Your task to perform on an android device: View the shopping cart on amazon. Add macbook to the cart on amazon, then select checkout. Image 0: 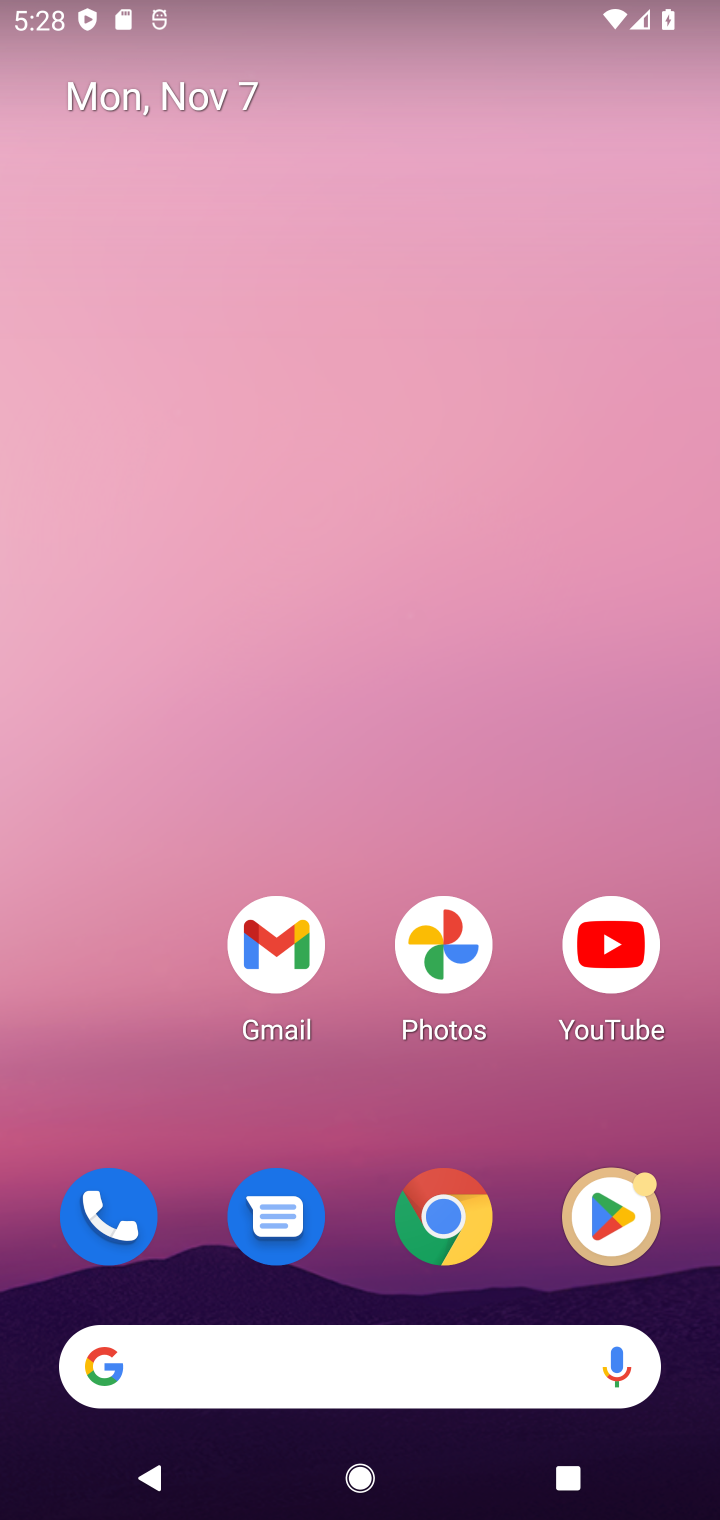
Step 0: drag from (364, 1311) to (345, 230)
Your task to perform on an android device: View the shopping cart on amazon. Add macbook to the cart on amazon, then select checkout. Image 1: 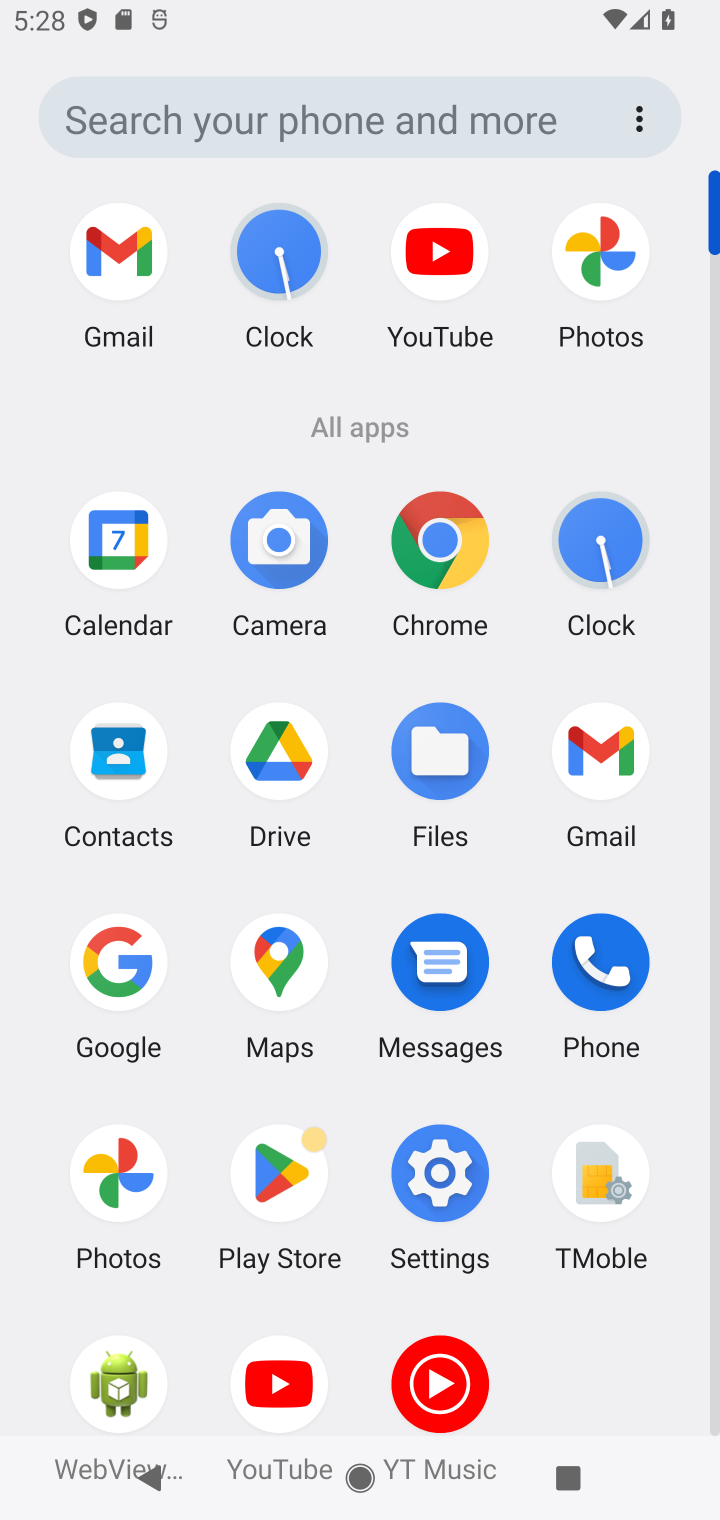
Step 1: click (444, 537)
Your task to perform on an android device: View the shopping cart on amazon. Add macbook to the cart on amazon, then select checkout. Image 2: 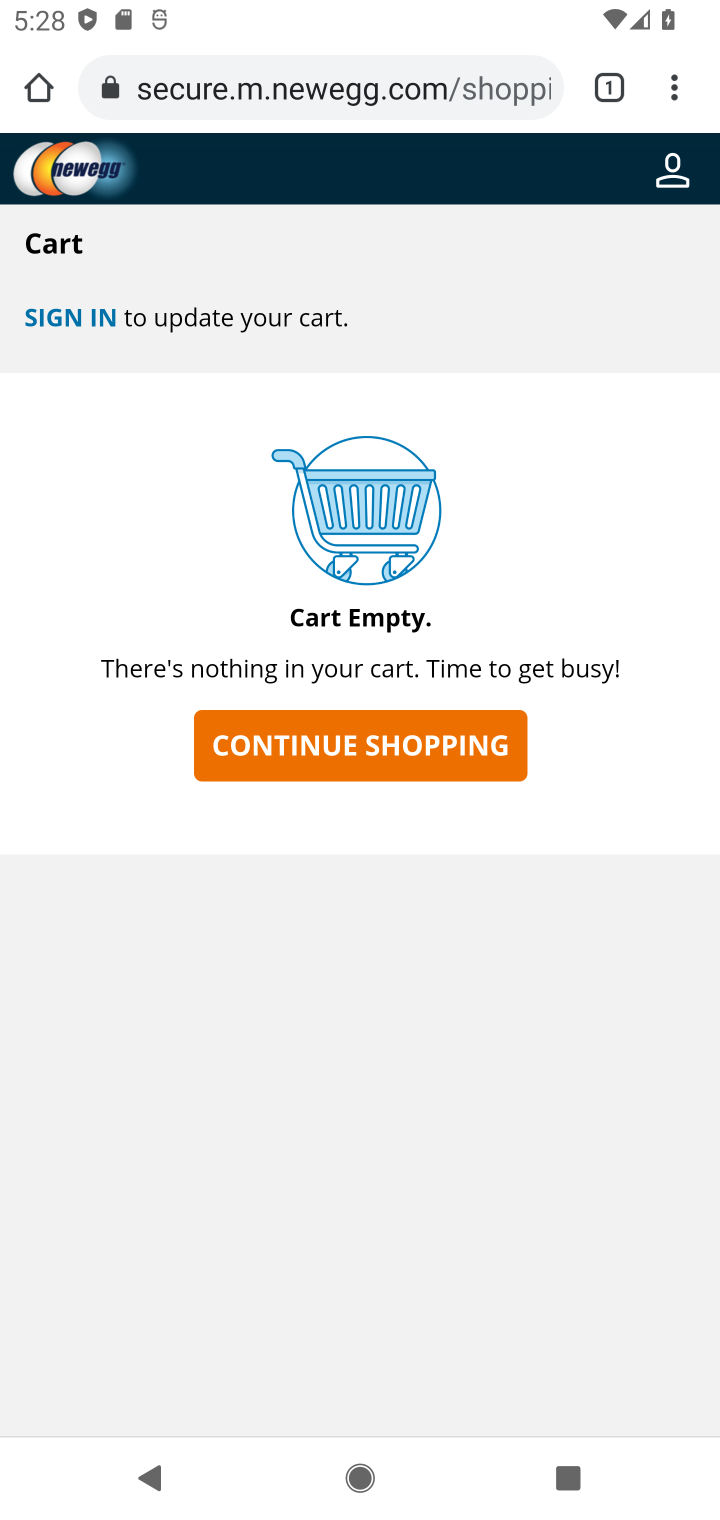
Step 2: click (444, 94)
Your task to perform on an android device: View the shopping cart on amazon. Add macbook to the cart on amazon, then select checkout. Image 3: 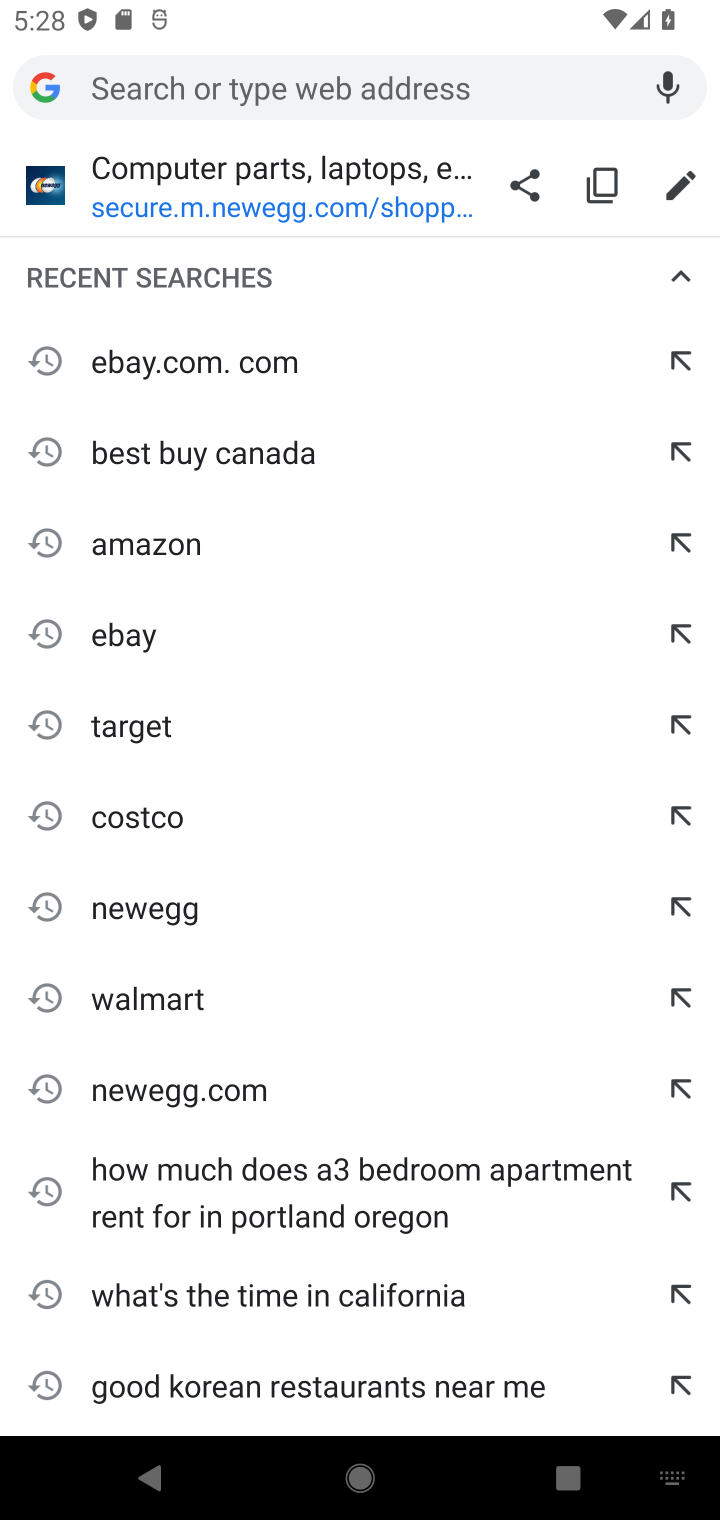
Step 3: type "amazon.com"
Your task to perform on an android device: View the shopping cart on amazon. Add macbook to the cart on amazon, then select checkout. Image 4: 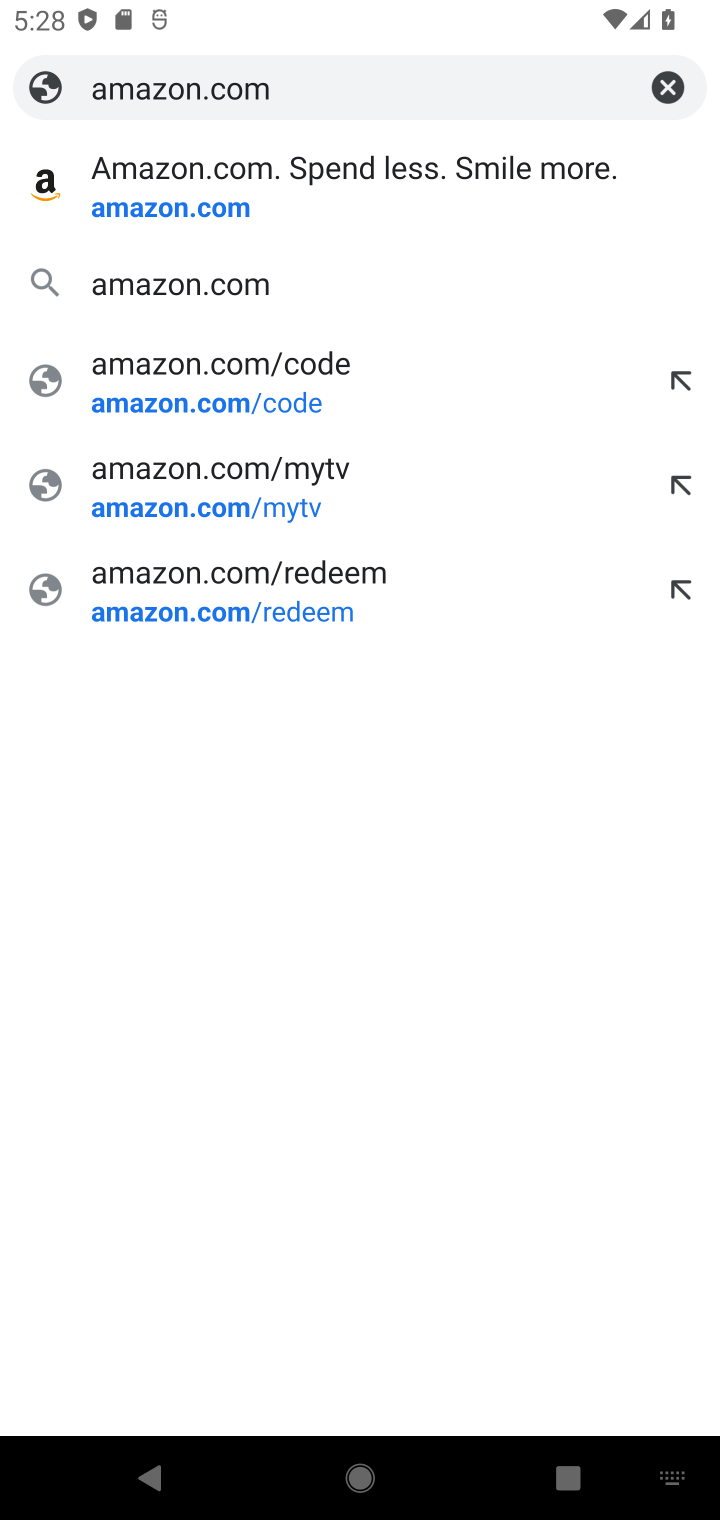
Step 4: press enter
Your task to perform on an android device: View the shopping cart on amazon. Add macbook to the cart on amazon, then select checkout. Image 5: 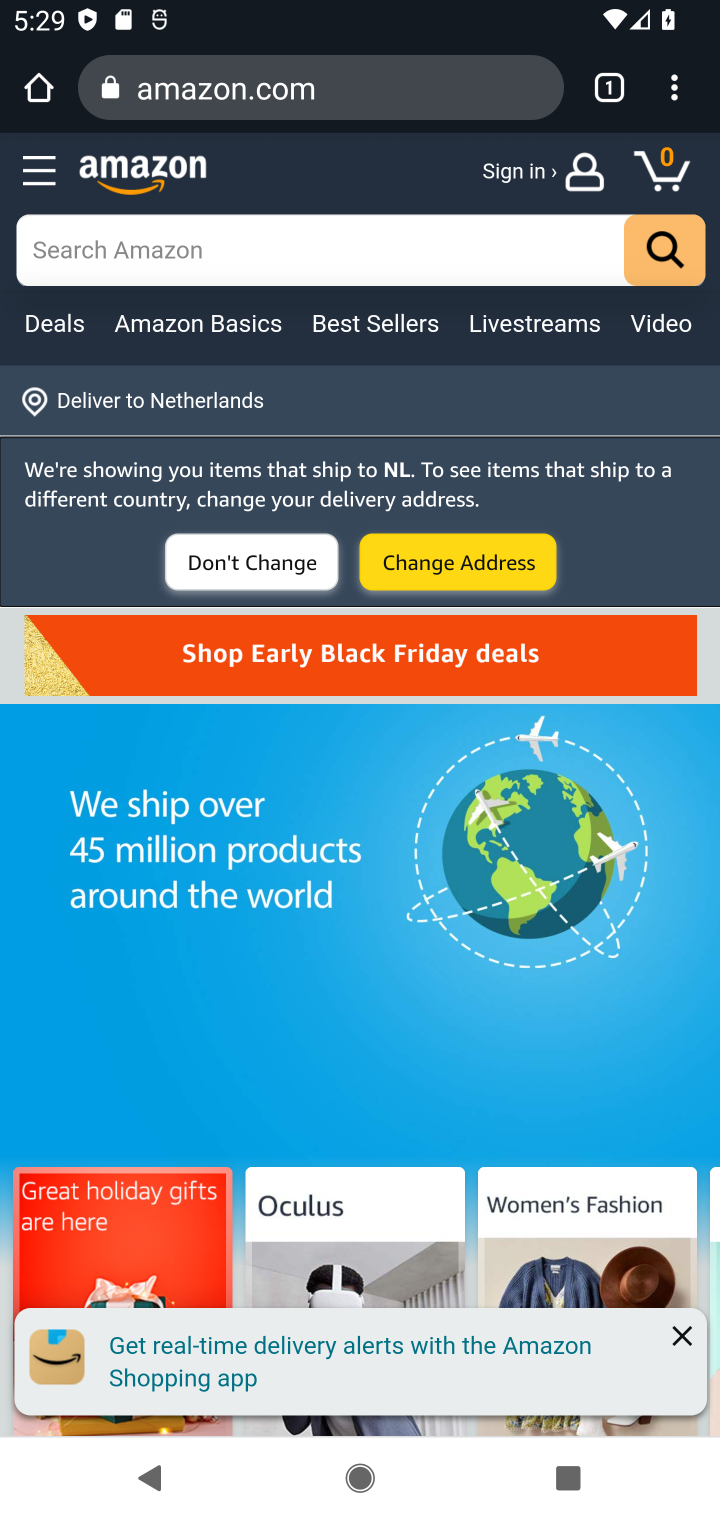
Step 5: click (655, 178)
Your task to perform on an android device: View the shopping cart on amazon. Add macbook to the cart on amazon, then select checkout. Image 6: 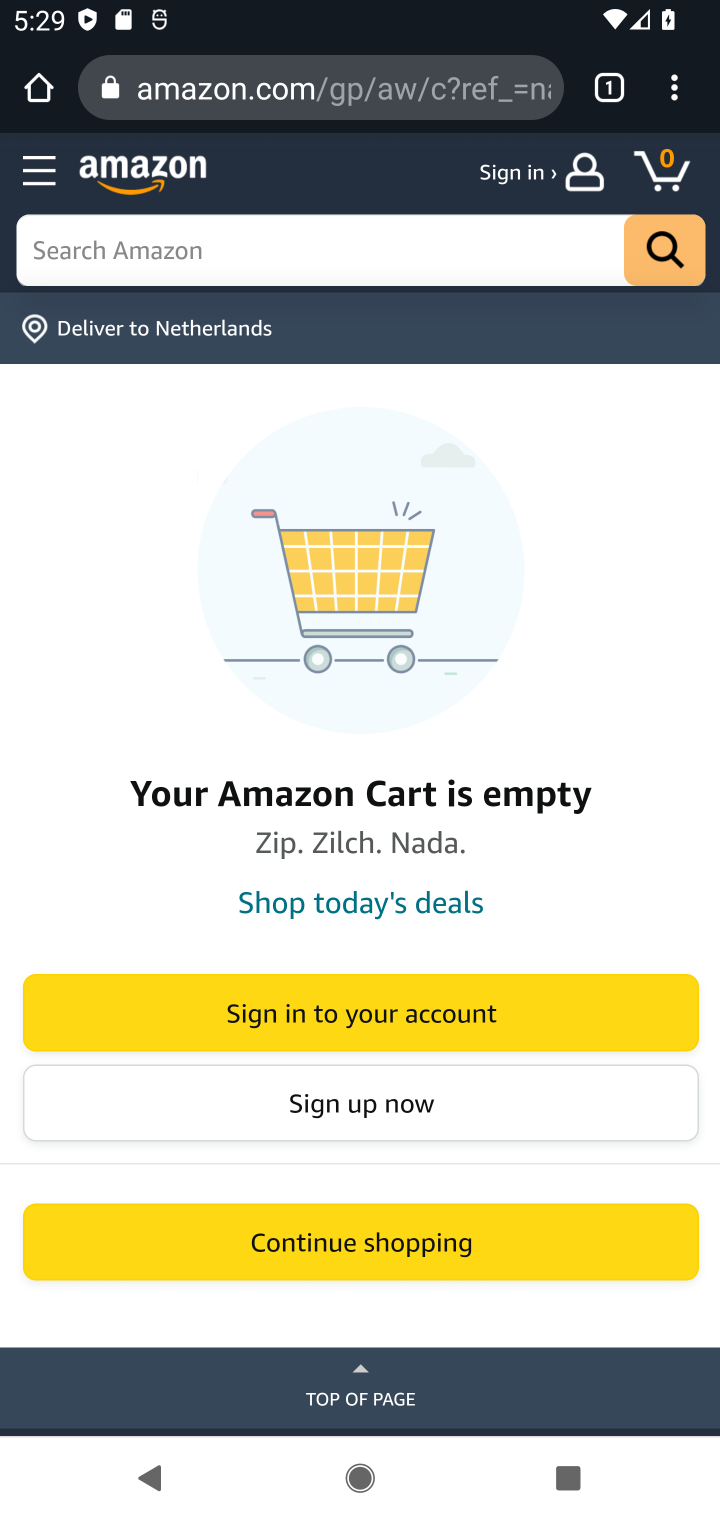
Step 6: click (427, 251)
Your task to perform on an android device: View the shopping cart on amazon. Add macbook to the cart on amazon, then select checkout. Image 7: 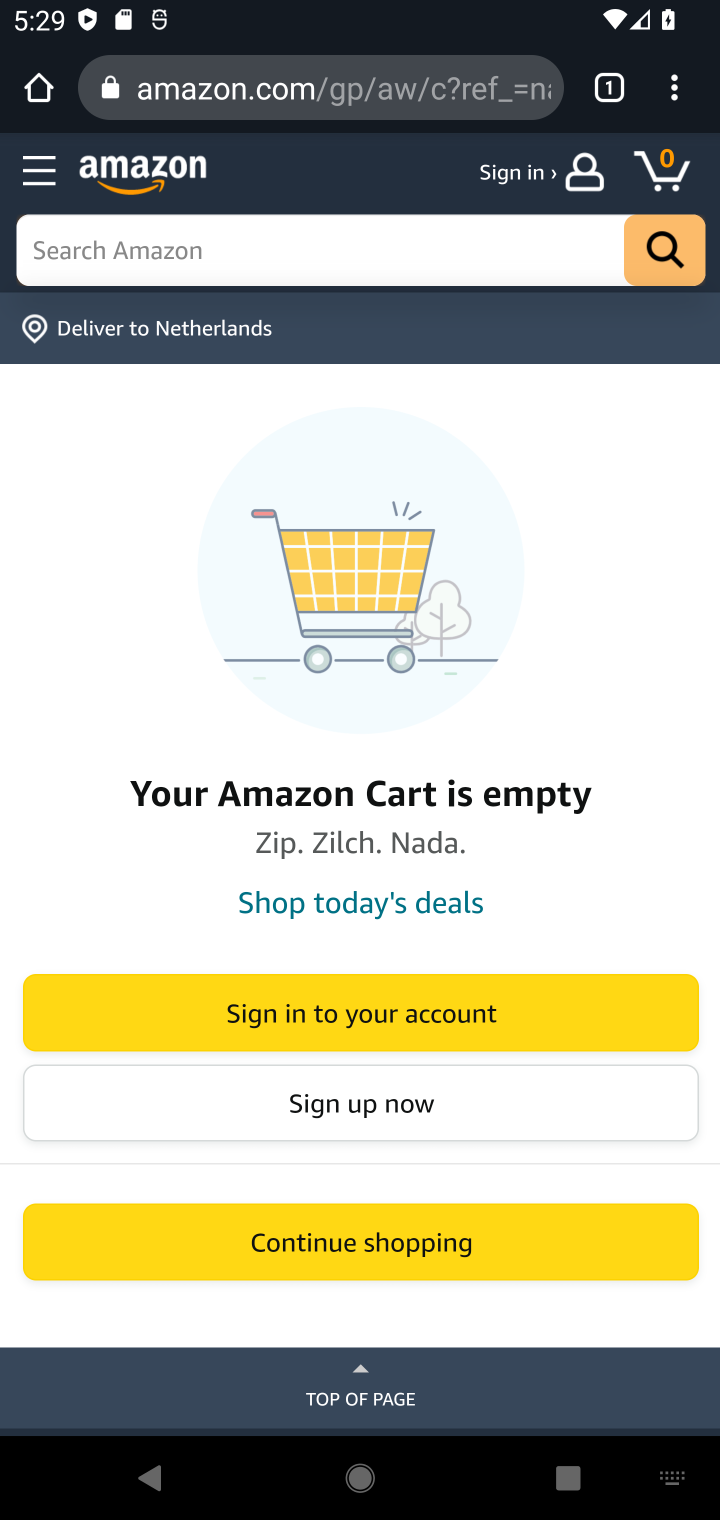
Step 7: type "macbook"
Your task to perform on an android device: View the shopping cart on amazon. Add macbook to the cart on amazon, then select checkout. Image 8: 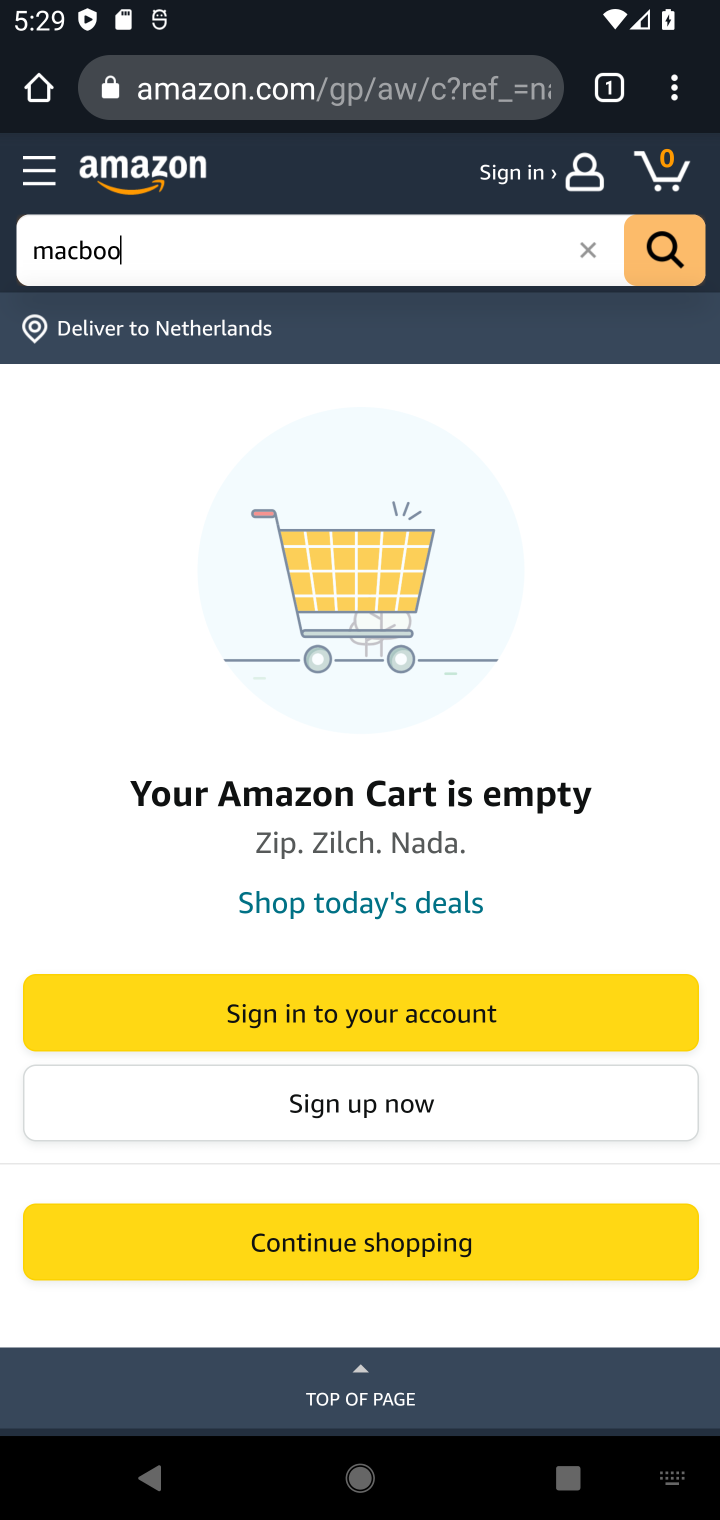
Step 8: press enter
Your task to perform on an android device: View the shopping cart on amazon. Add macbook to the cart on amazon, then select checkout. Image 9: 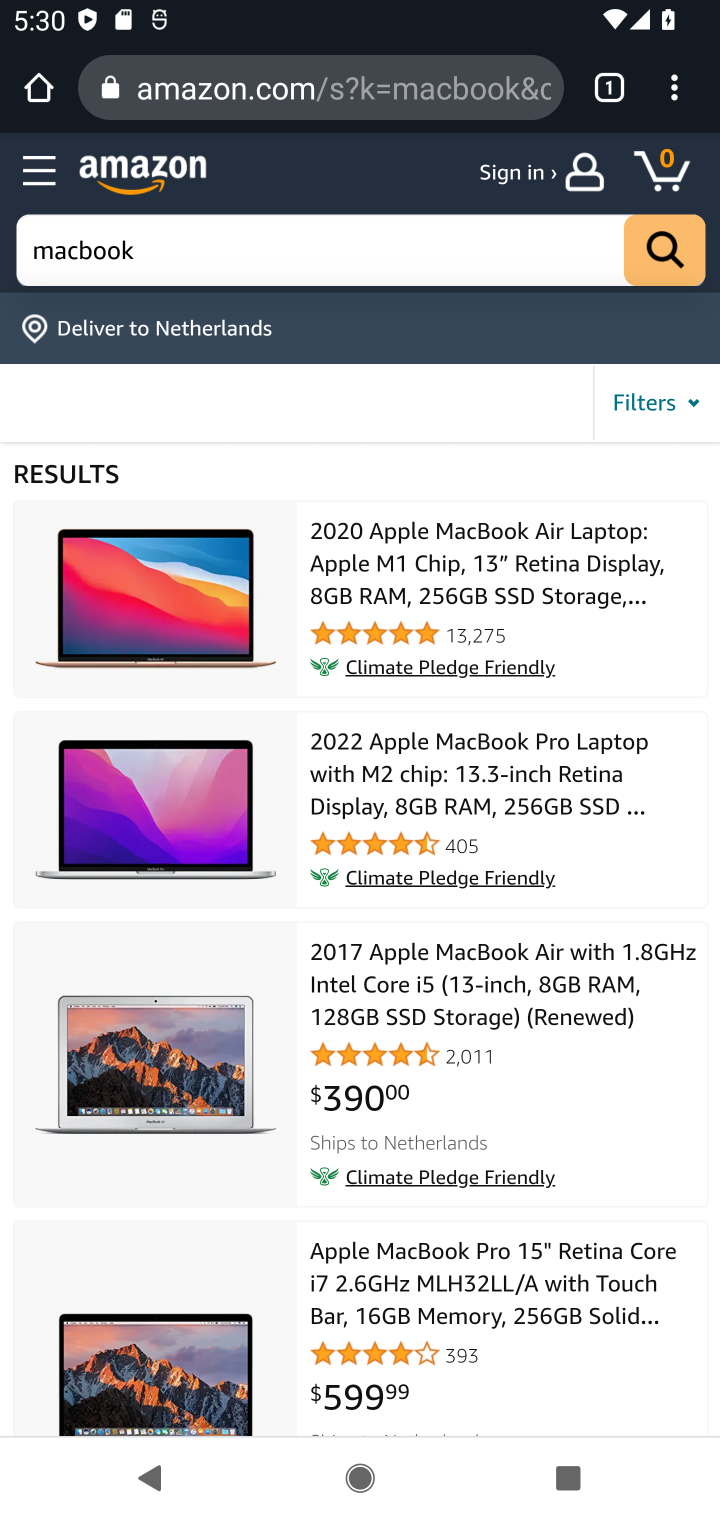
Step 9: click (426, 569)
Your task to perform on an android device: View the shopping cart on amazon. Add macbook to the cart on amazon, then select checkout. Image 10: 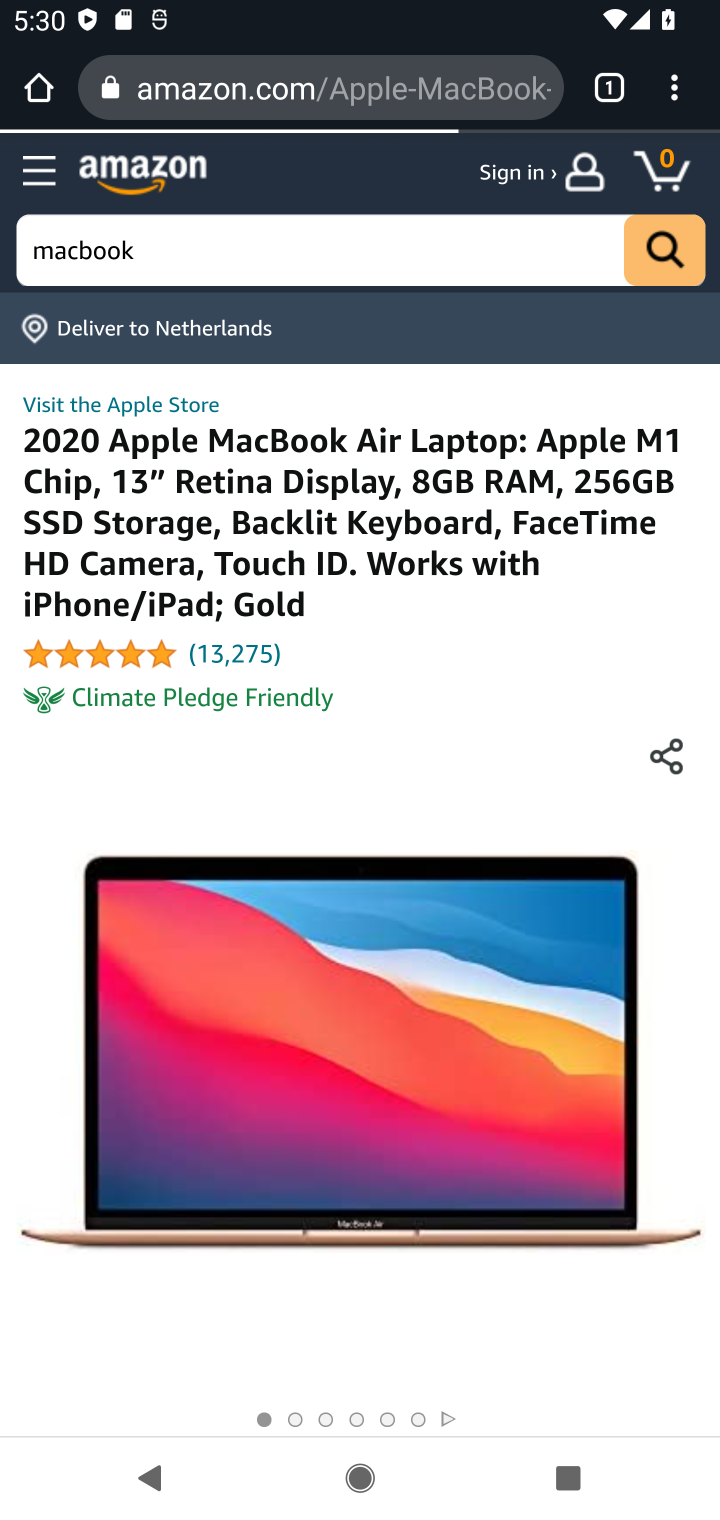
Step 10: task complete